Your task to perform on an android device: turn on translation in the chrome app Image 0: 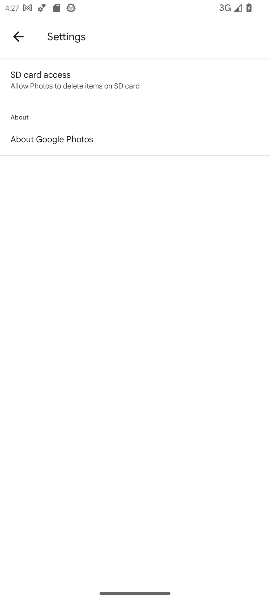
Step 0: press home button
Your task to perform on an android device: turn on translation in the chrome app Image 1: 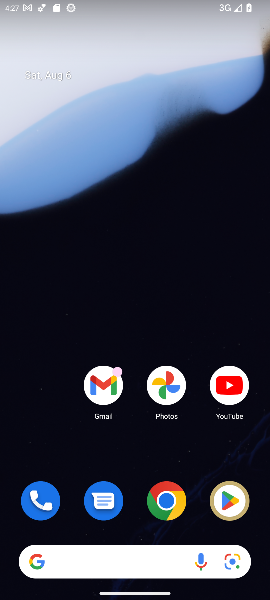
Step 1: click (167, 511)
Your task to perform on an android device: turn on translation in the chrome app Image 2: 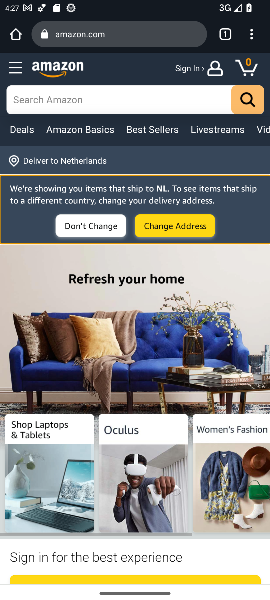
Step 2: click (252, 34)
Your task to perform on an android device: turn on translation in the chrome app Image 3: 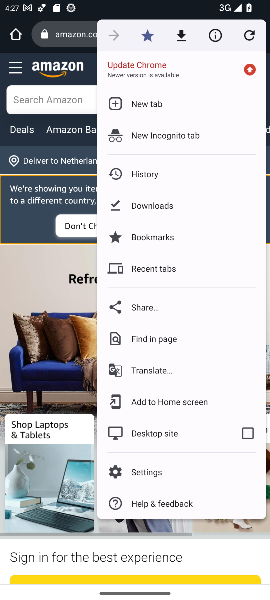
Step 3: click (157, 466)
Your task to perform on an android device: turn on translation in the chrome app Image 4: 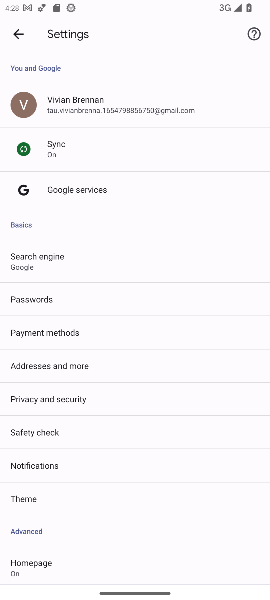
Step 4: drag from (128, 527) to (170, 199)
Your task to perform on an android device: turn on translation in the chrome app Image 5: 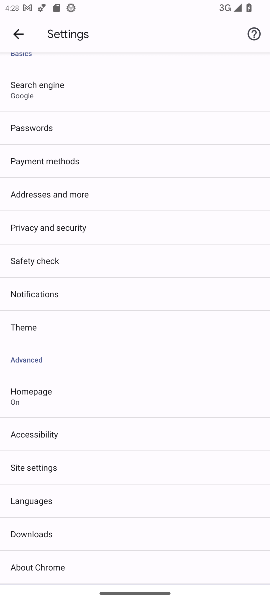
Step 5: click (69, 504)
Your task to perform on an android device: turn on translation in the chrome app Image 6: 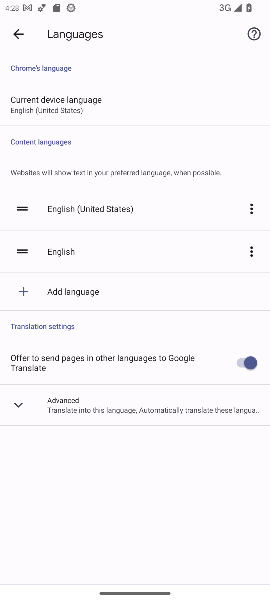
Step 6: task complete